Your task to perform on an android device: Open a new private tab in Chrome Image 0: 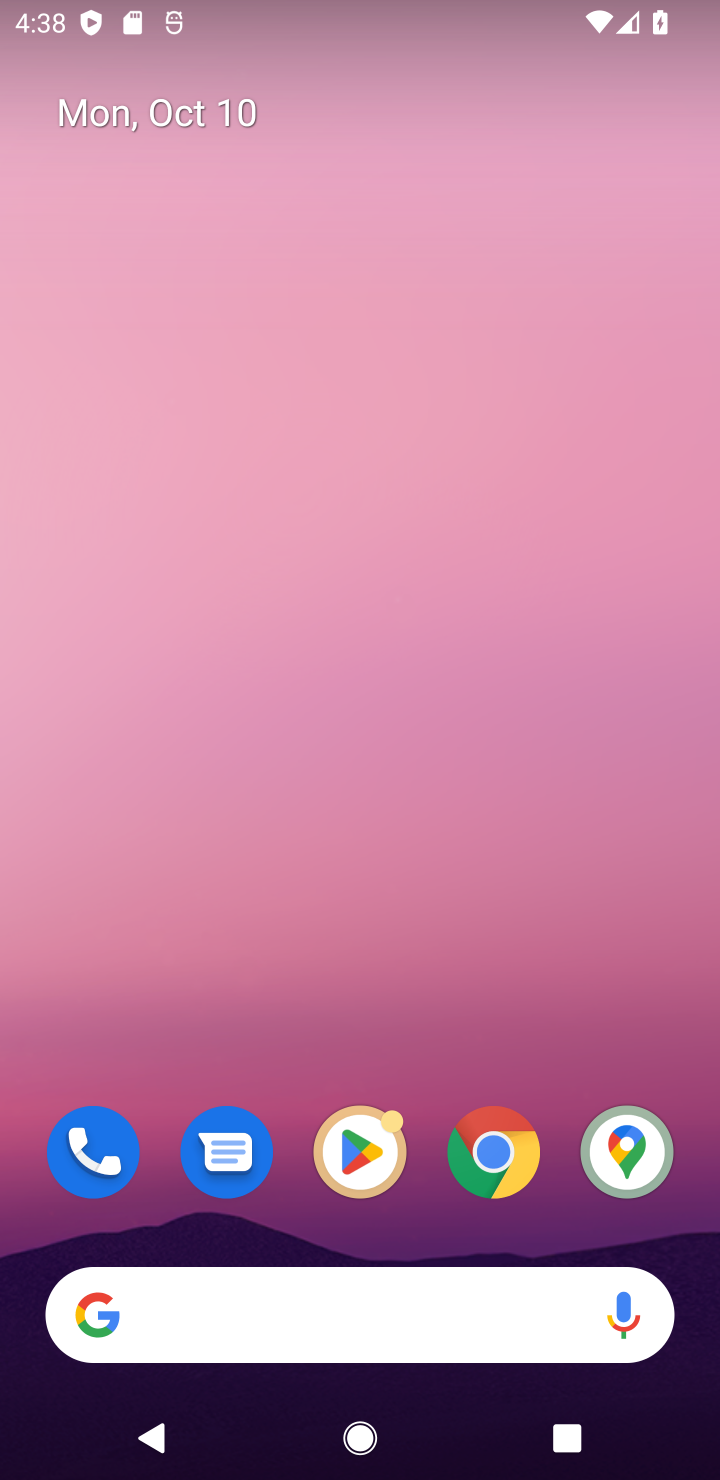
Step 0: click (492, 1157)
Your task to perform on an android device: Open a new private tab in Chrome Image 1: 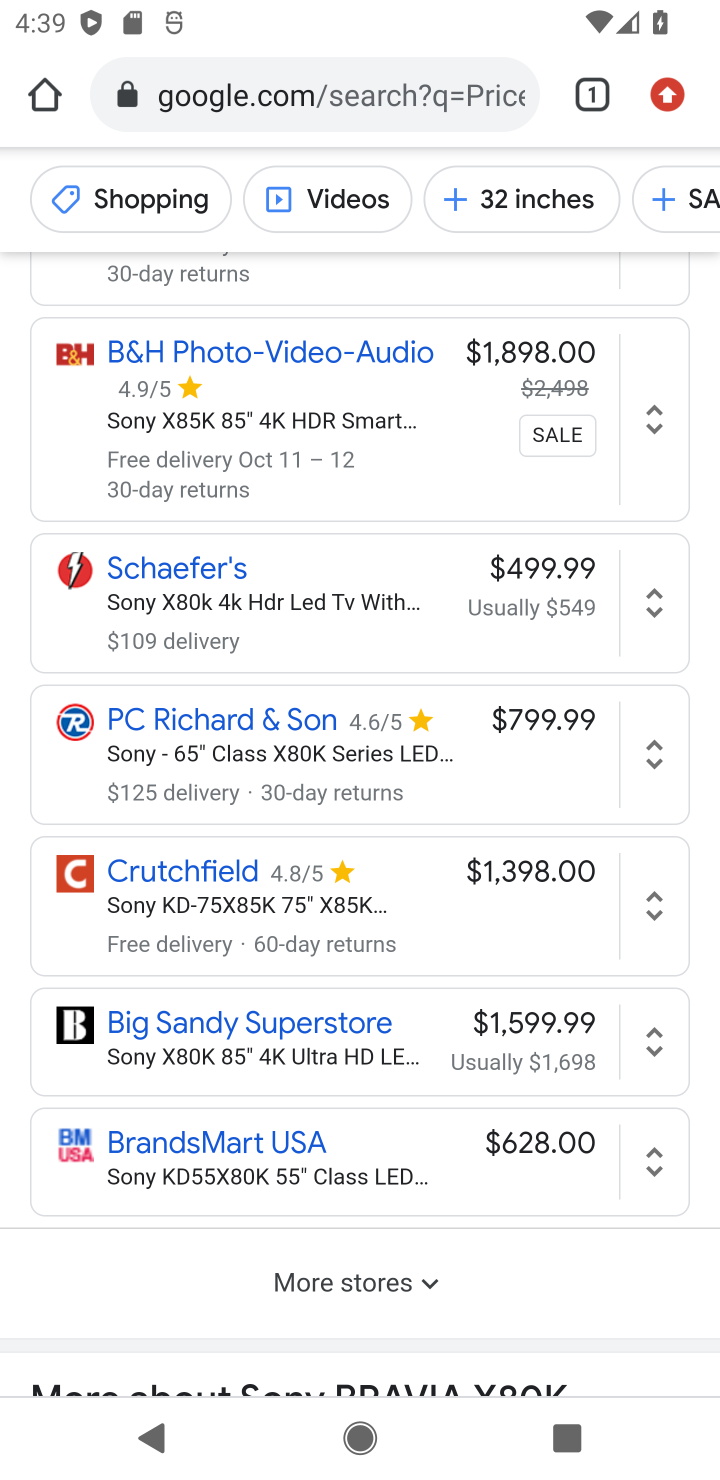
Step 1: click (669, 101)
Your task to perform on an android device: Open a new private tab in Chrome Image 2: 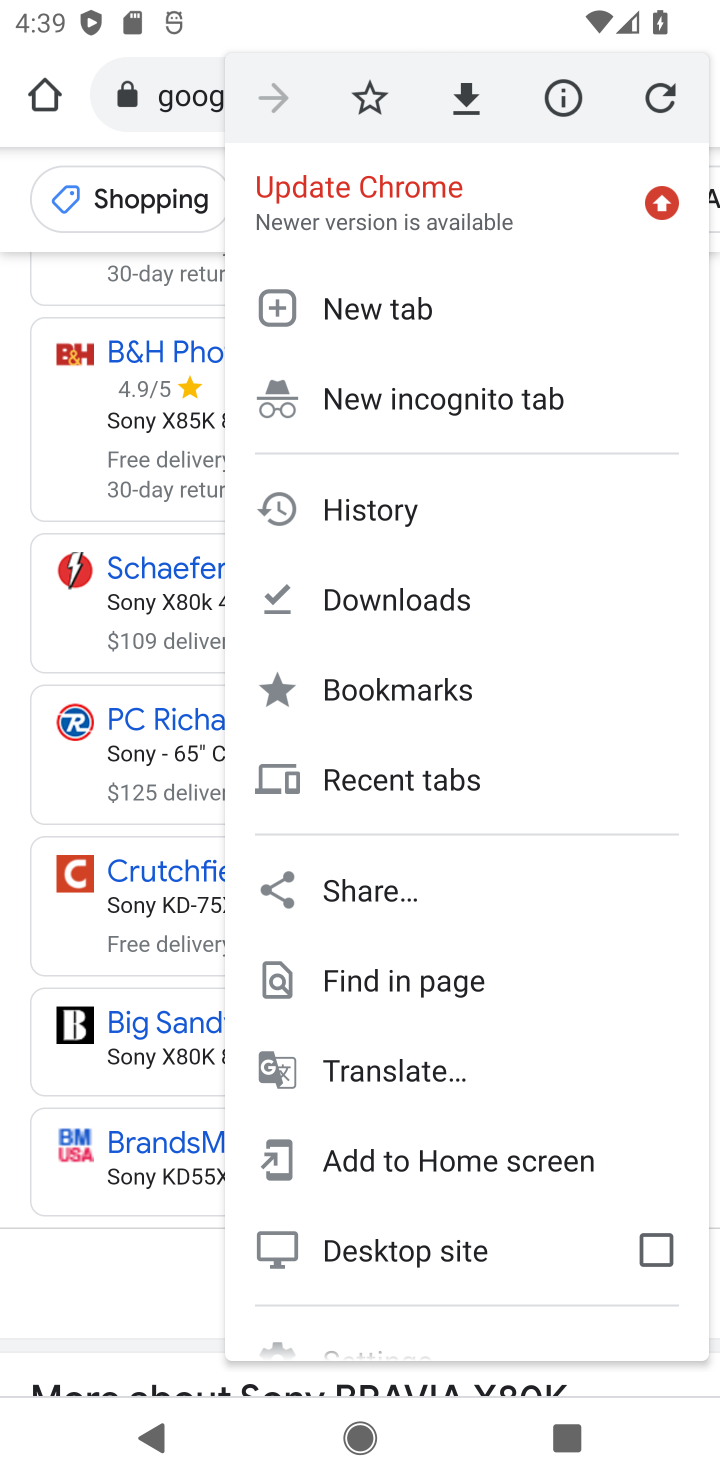
Step 2: click (501, 392)
Your task to perform on an android device: Open a new private tab in Chrome Image 3: 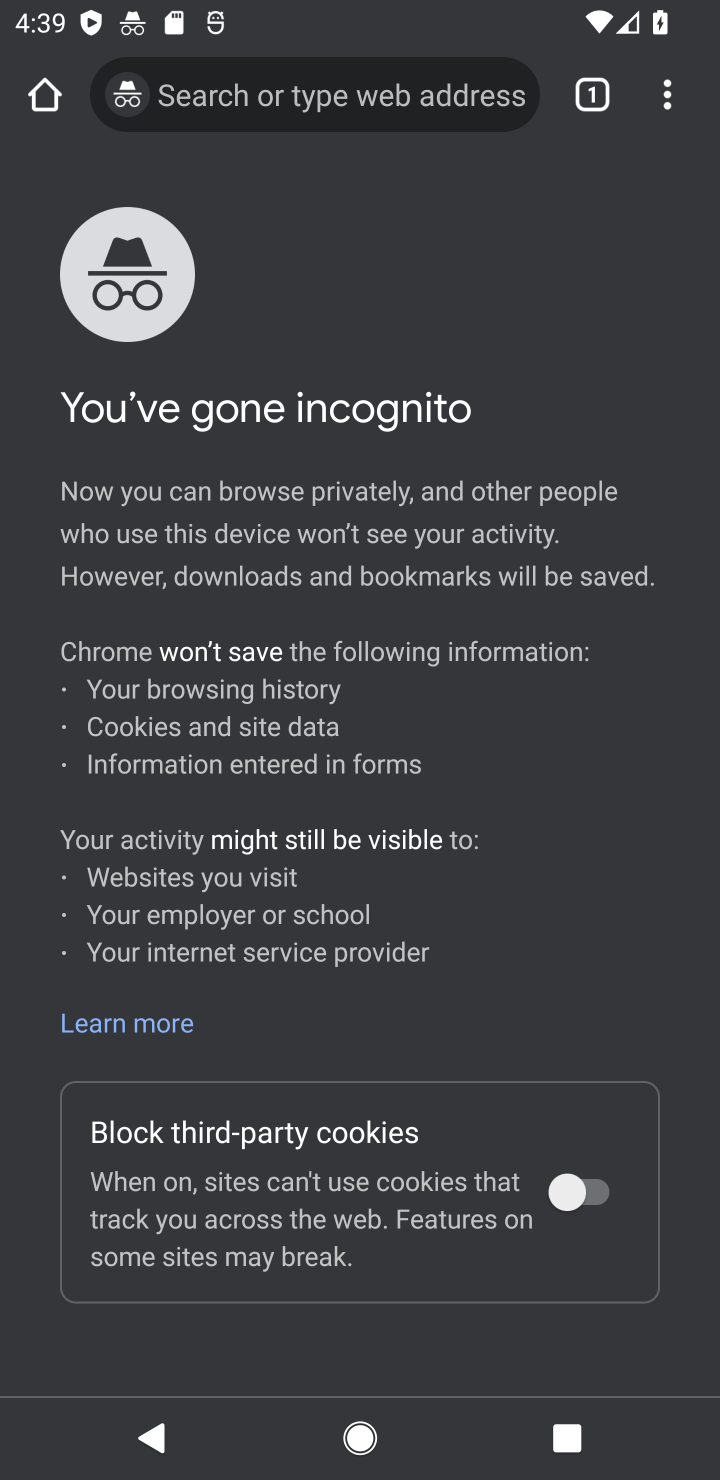
Step 3: task complete